Your task to perform on an android device: turn pop-ups on in chrome Image 0: 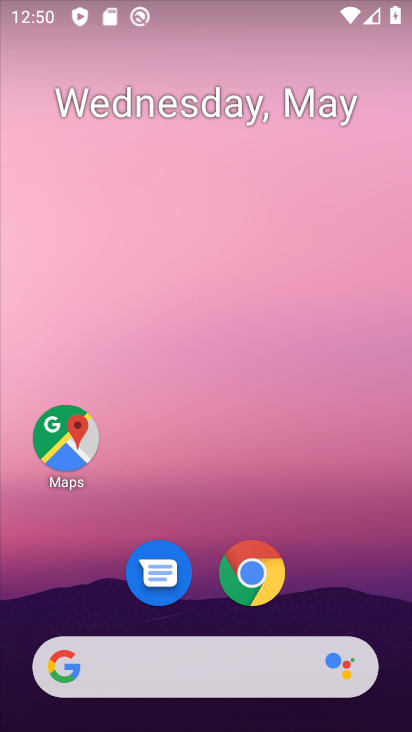
Step 0: click (228, 577)
Your task to perform on an android device: turn pop-ups on in chrome Image 1: 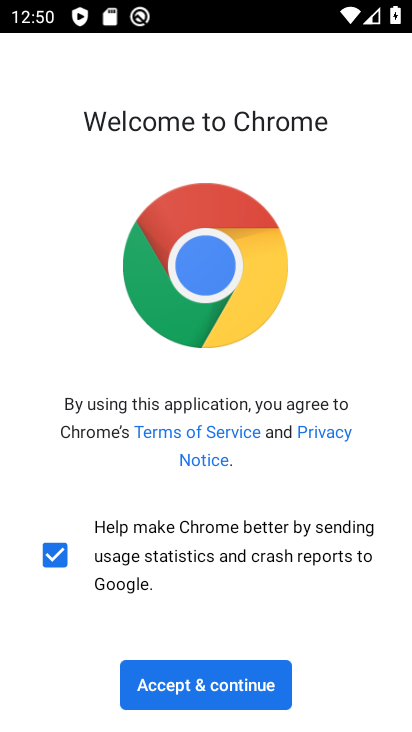
Step 1: click (240, 690)
Your task to perform on an android device: turn pop-ups on in chrome Image 2: 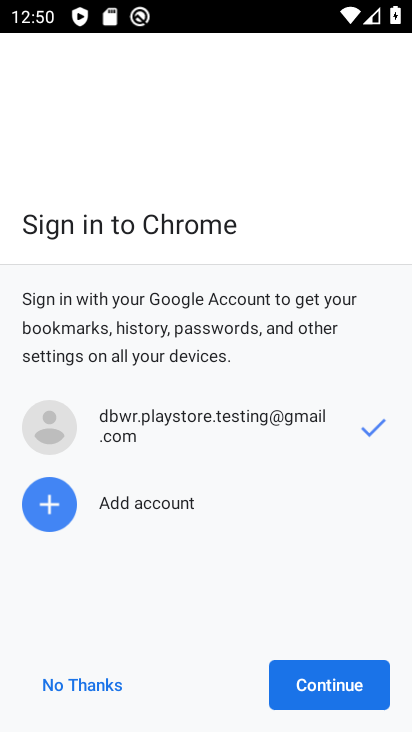
Step 2: click (322, 697)
Your task to perform on an android device: turn pop-ups on in chrome Image 3: 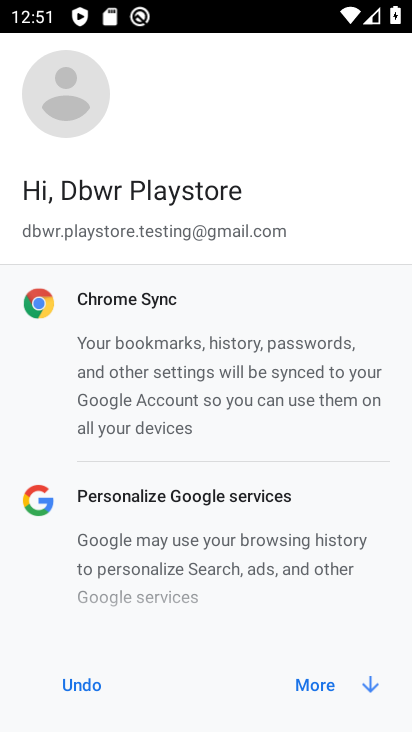
Step 3: click (325, 697)
Your task to perform on an android device: turn pop-ups on in chrome Image 4: 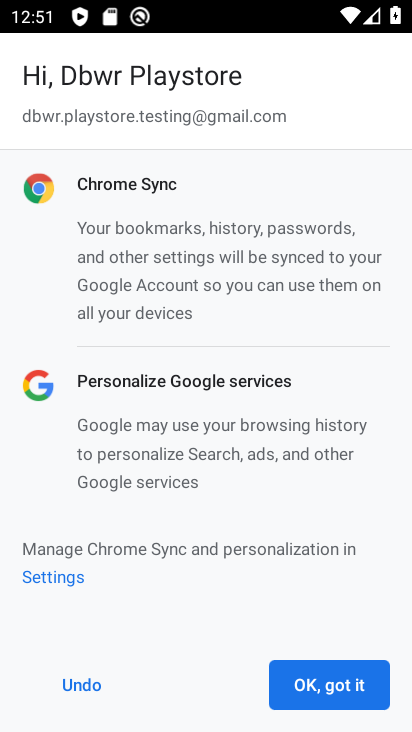
Step 4: click (325, 695)
Your task to perform on an android device: turn pop-ups on in chrome Image 5: 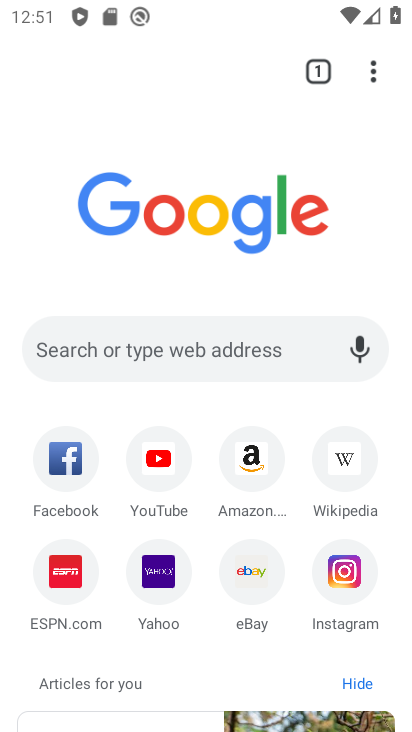
Step 5: drag from (380, 86) to (260, 614)
Your task to perform on an android device: turn pop-ups on in chrome Image 6: 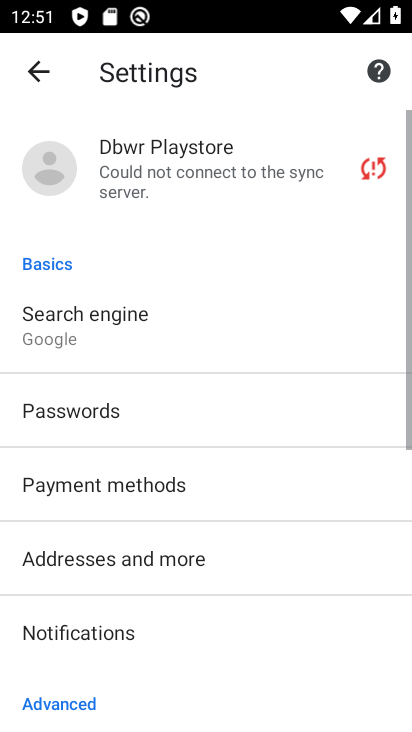
Step 6: drag from (228, 614) to (317, 185)
Your task to perform on an android device: turn pop-ups on in chrome Image 7: 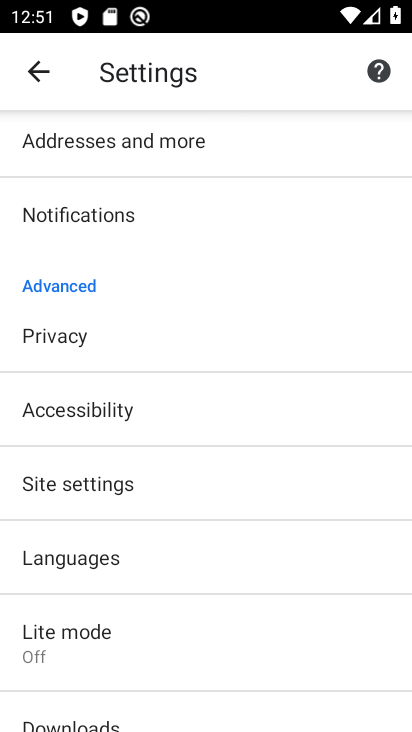
Step 7: click (161, 495)
Your task to perform on an android device: turn pop-ups on in chrome Image 8: 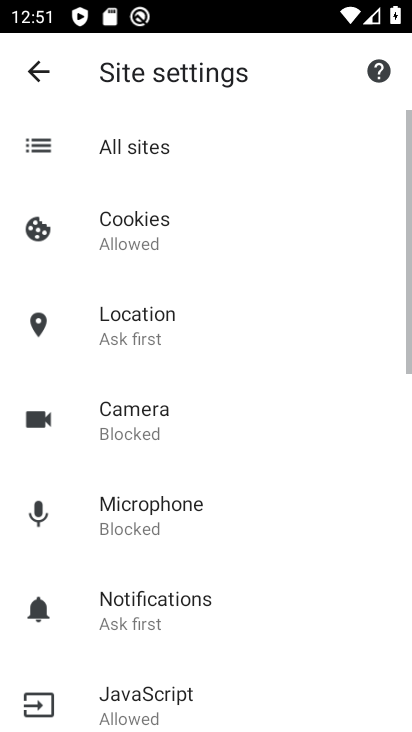
Step 8: drag from (166, 673) to (256, 304)
Your task to perform on an android device: turn pop-ups on in chrome Image 9: 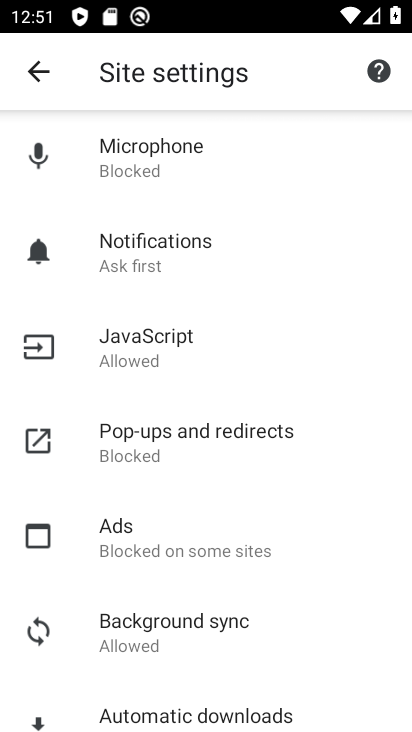
Step 9: click (223, 461)
Your task to perform on an android device: turn pop-ups on in chrome Image 10: 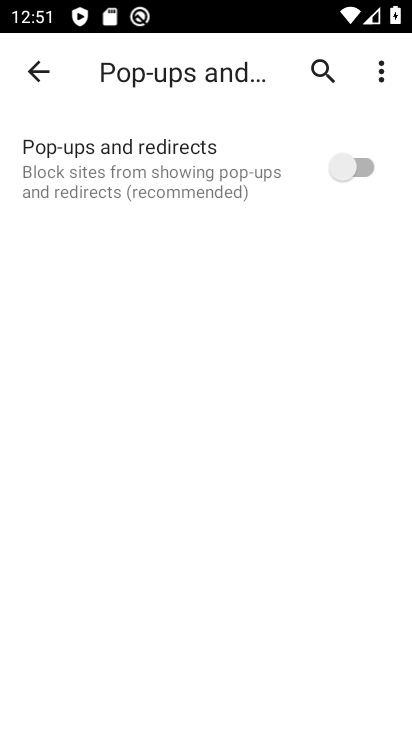
Step 10: click (370, 161)
Your task to perform on an android device: turn pop-ups on in chrome Image 11: 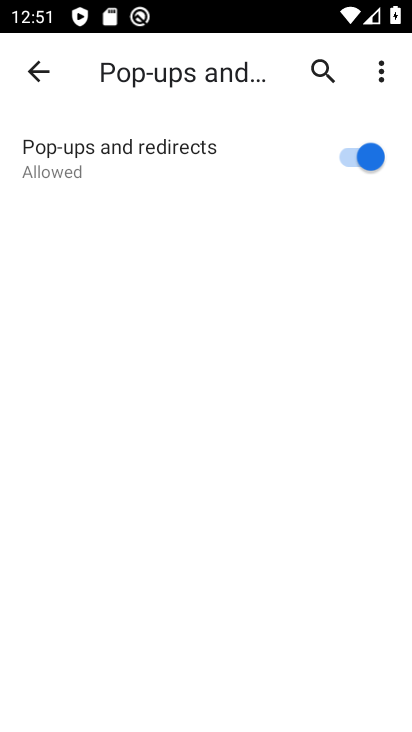
Step 11: task complete